Your task to perform on an android device: check android version Image 0: 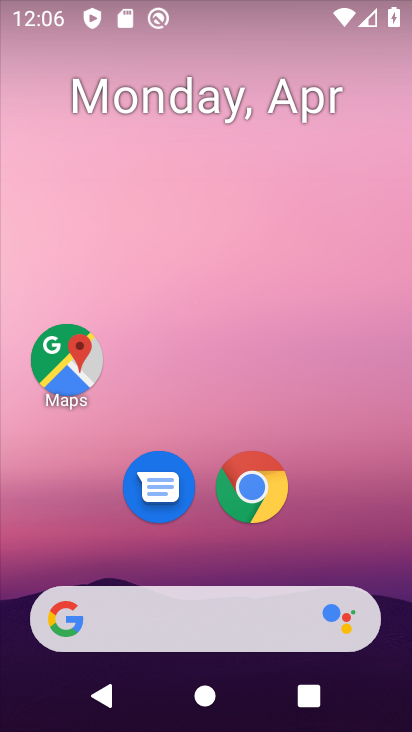
Step 0: drag from (397, 619) to (222, 54)
Your task to perform on an android device: check android version Image 1: 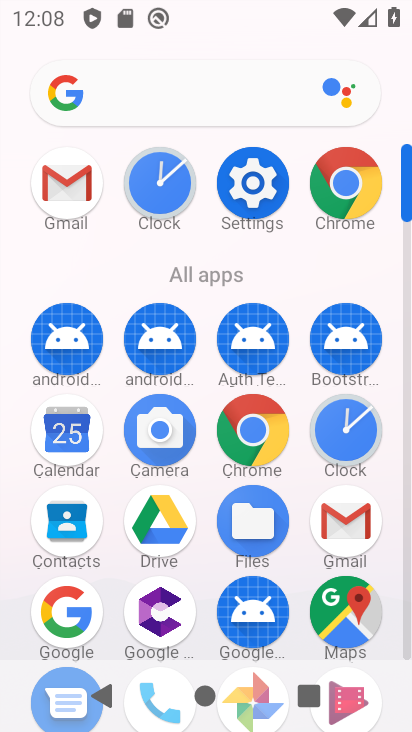
Step 1: click (269, 207)
Your task to perform on an android device: check android version Image 2: 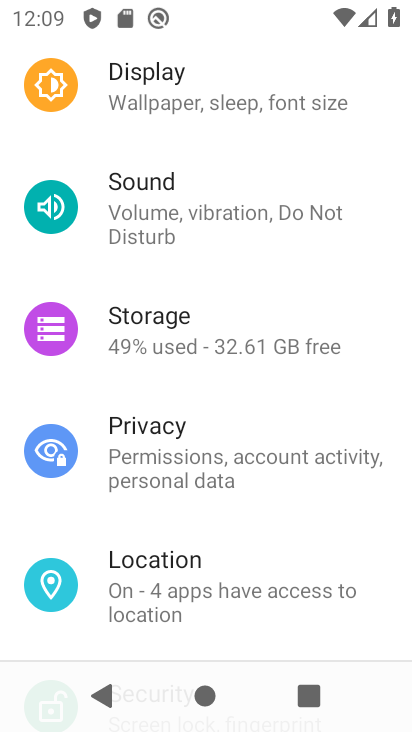
Step 2: drag from (165, 612) to (288, 80)
Your task to perform on an android device: check android version Image 3: 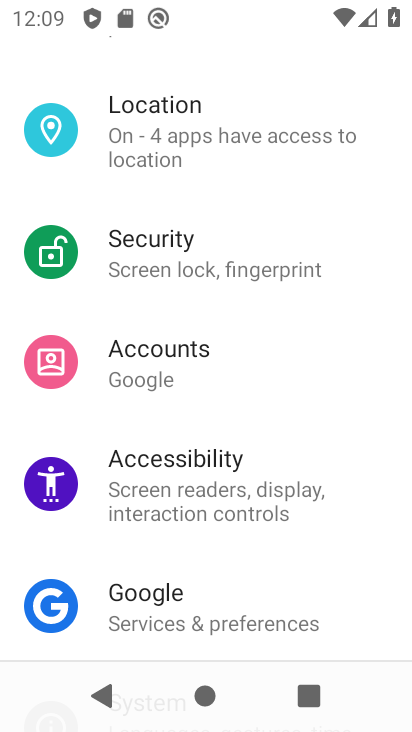
Step 3: drag from (115, 617) to (203, 92)
Your task to perform on an android device: check android version Image 4: 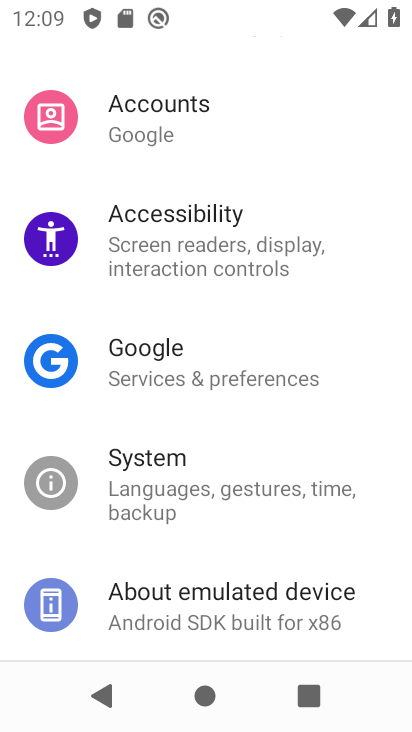
Step 4: click (162, 613)
Your task to perform on an android device: check android version Image 5: 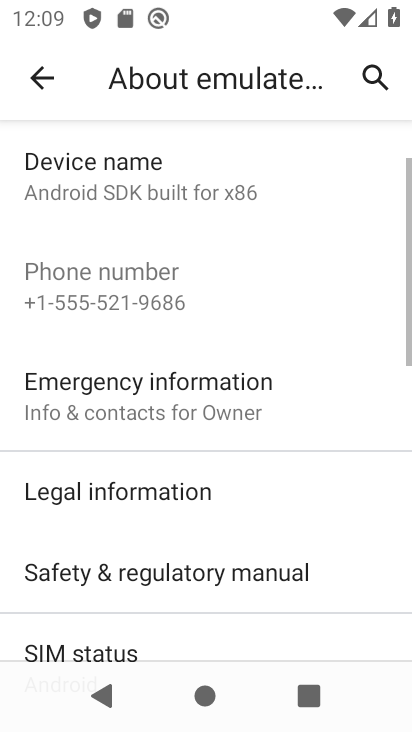
Step 5: drag from (163, 604) to (200, 215)
Your task to perform on an android device: check android version Image 6: 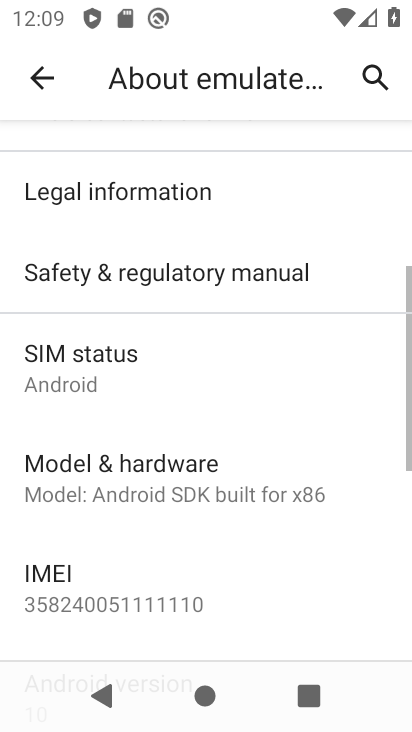
Step 6: drag from (111, 475) to (189, 151)
Your task to perform on an android device: check android version Image 7: 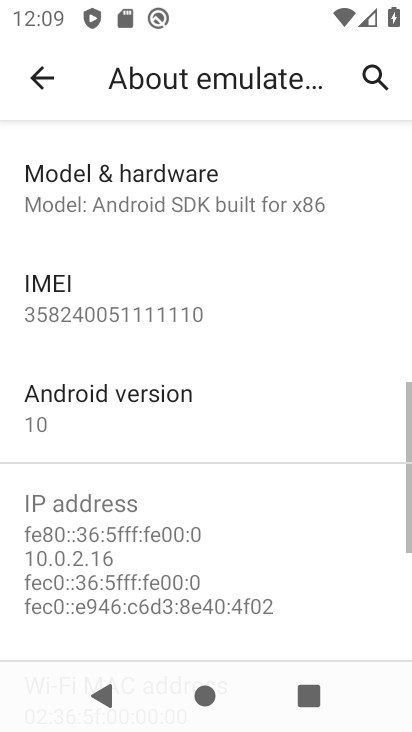
Step 7: click (145, 398)
Your task to perform on an android device: check android version Image 8: 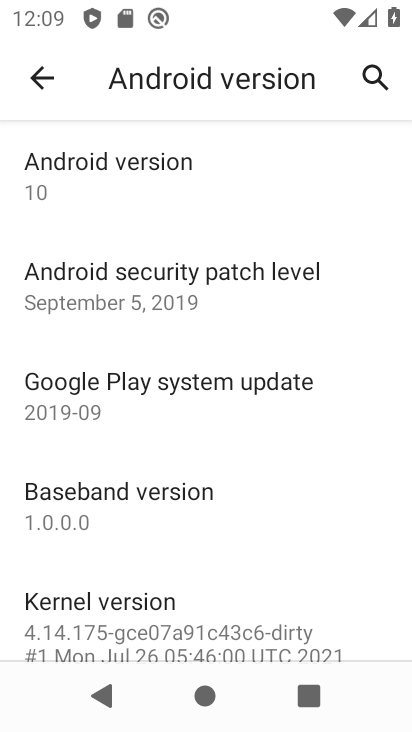
Step 8: task complete